Your task to perform on an android device: Open accessibility settings Image 0: 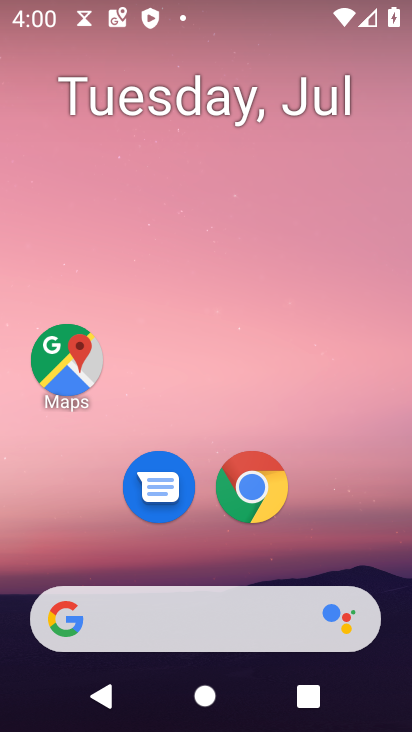
Step 0: drag from (162, 582) to (187, 49)
Your task to perform on an android device: Open accessibility settings Image 1: 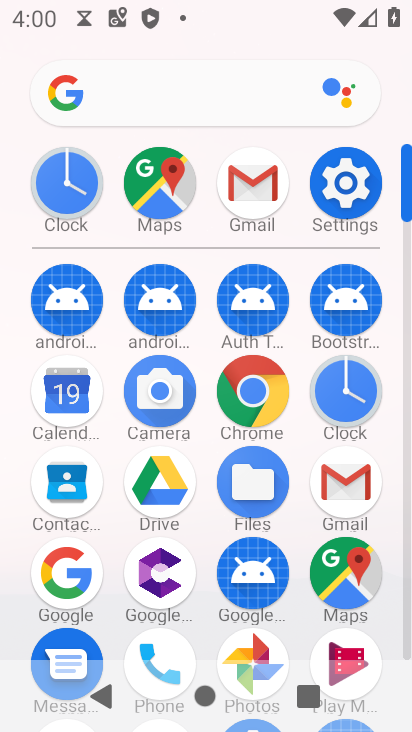
Step 1: click (350, 180)
Your task to perform on an android device: Open accessibility settings Image 2: 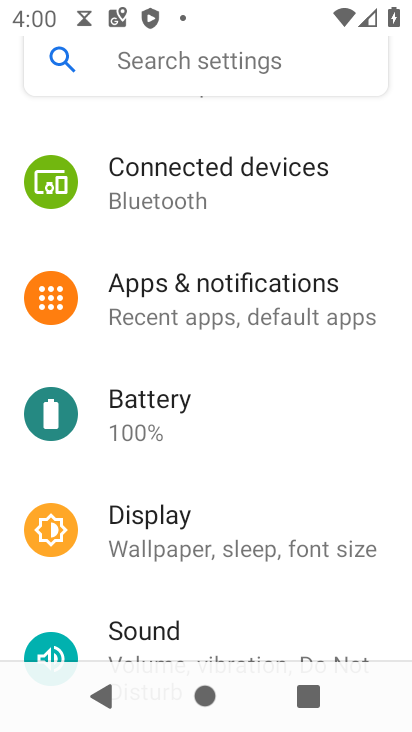
Step 2: drag from (215, 510) to (318, 13)
Your task to perform on an android device: Open accessibility settings Image 3: 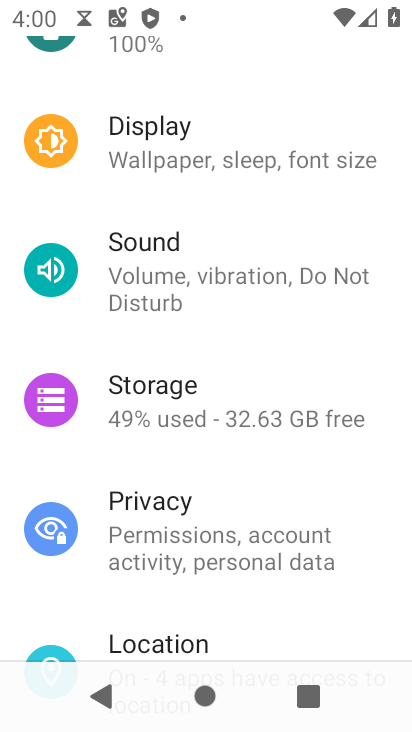
Step 3: drag from (199, 575) to (300, 3)
Your task to perform on an android device: Open accessibility settings Image 4: 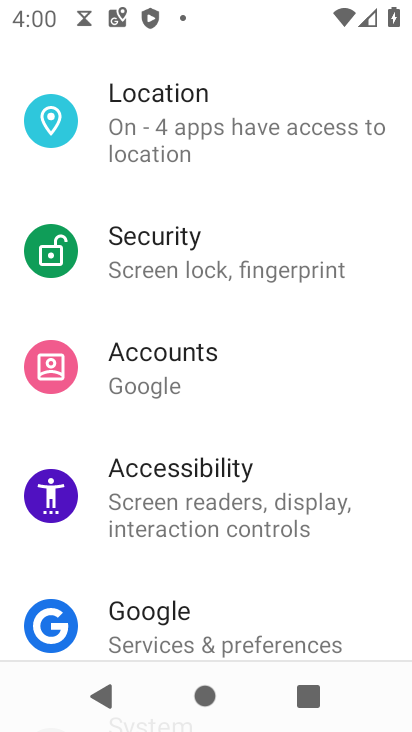
Step 4: click (221, 485)
Your task to perform on an android device: Open accessibility settings Image 5: 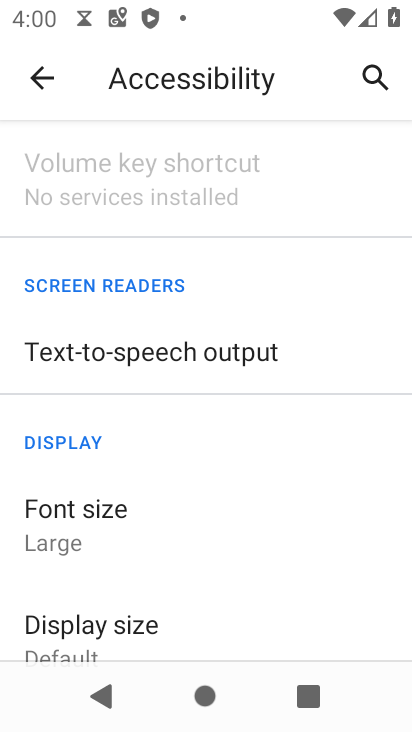
Step 5: task complete